Your task to perform on an android device: What's the weather going to be tomorrow? Image 0: 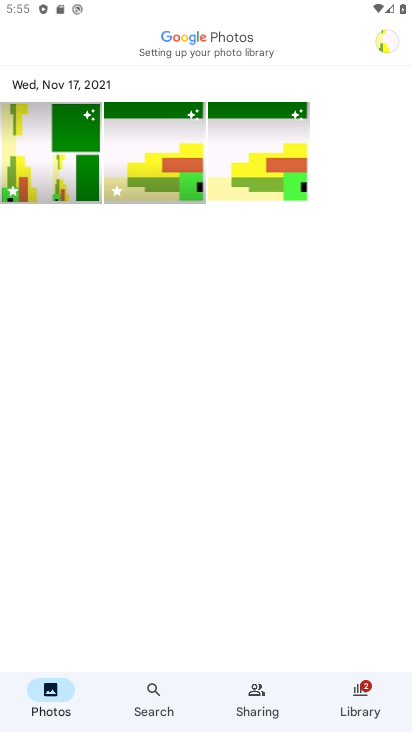
Step 0: press home button
Your task to perform on an android device: What's the weather going to be tomorrow? Image 1: 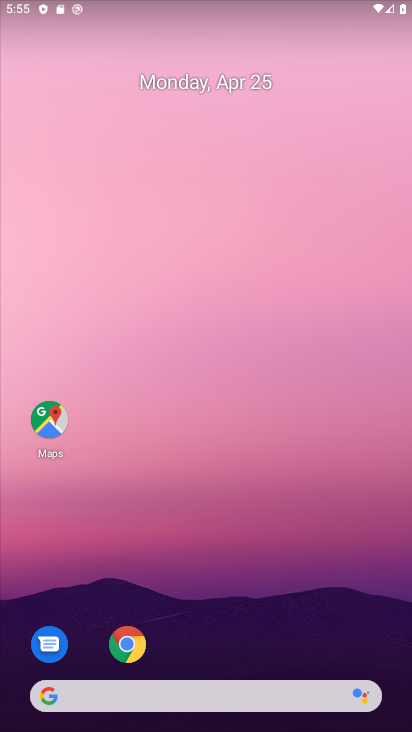
Step 1: drag from (243, 624) to (242, 172)
Your task to perform on an android device: What's the weather going to be tomorrow? Image 2: 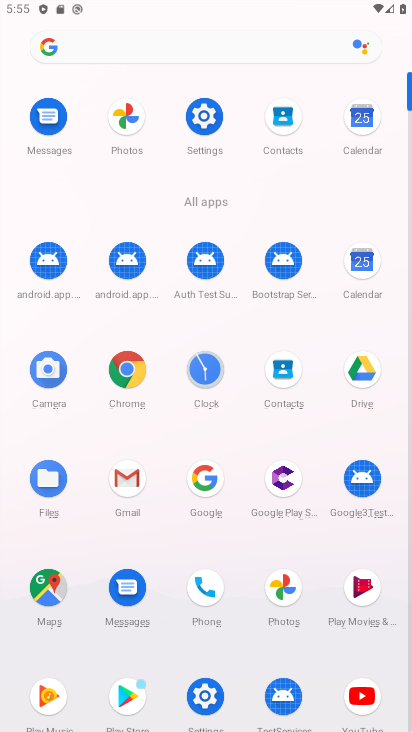
Step 2: click (205, 479)
Your task to perform on an android device: What's the weather going to be tomorrow? Image 3: 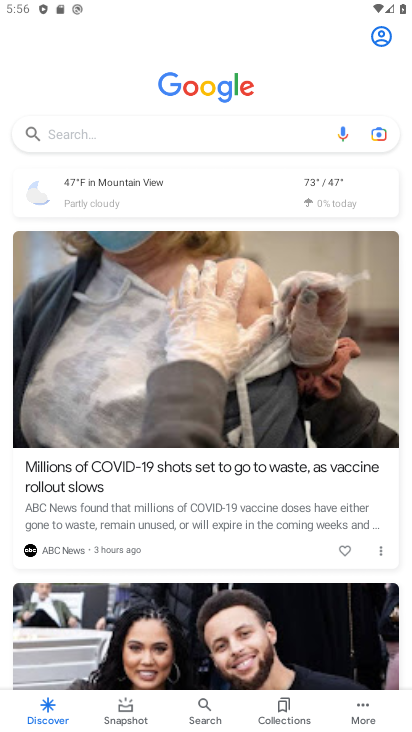
Step 3: click (323, 177)
Your task to perform on an android device: What's the weather going to be tomorrow? Image 4: 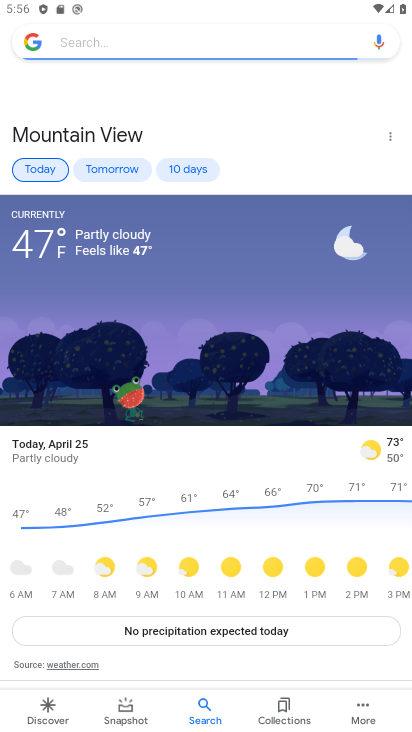
Step 4: drag from (321, 178) to (286, 309)
Your task to perform on an android device: What's the weather going to be tomorrow? Image 5: 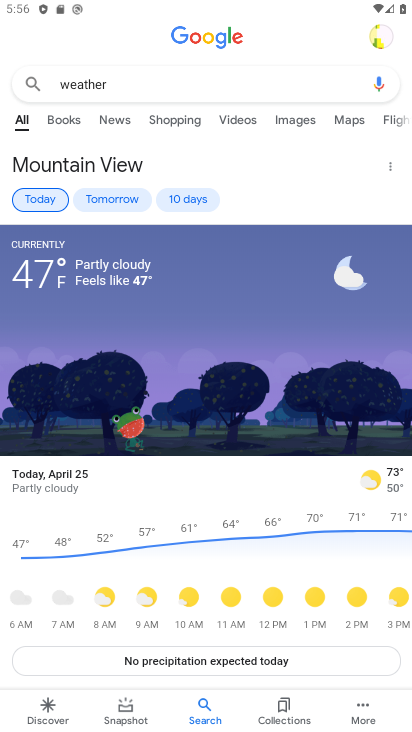
Step 5: click (122, 193)
Your task to perform on an android device: What's the weather going to be tomorrow? Image 6: 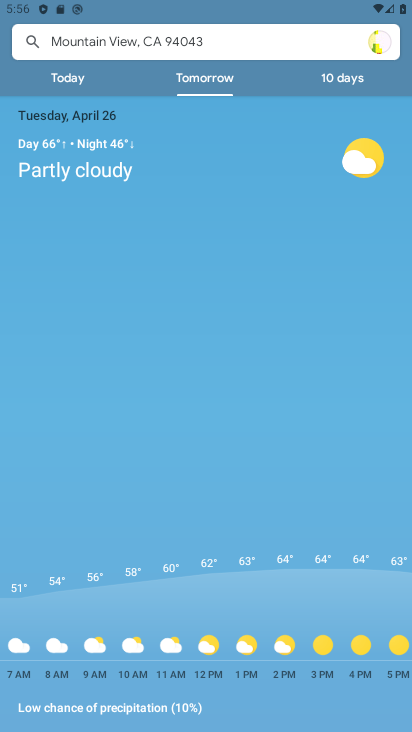
Step 6: task complete